Your task to perform on an android device: open app "Pinterest" Image 0: 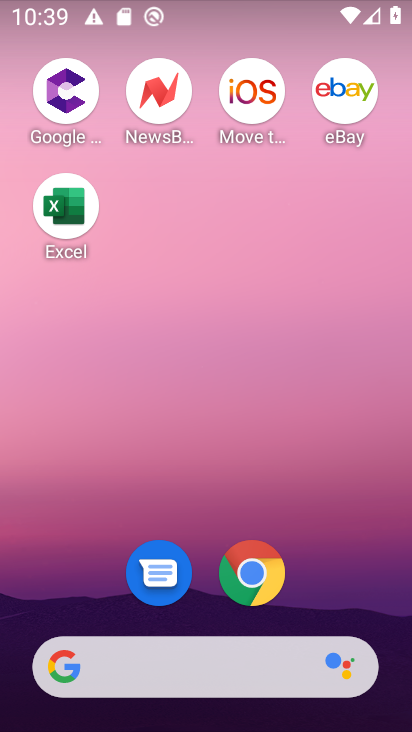
Step 0: press home button
Your task to perform on an android device: open app "Pinterest" Image 1: 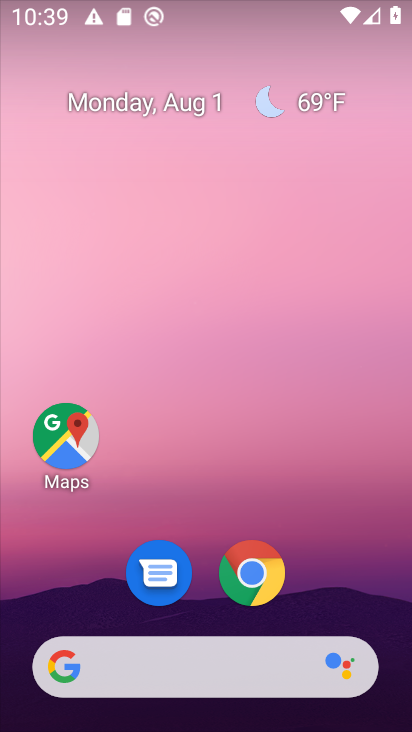
Step 1: drag from (332, 576) to (304, 68)
Your task to perform on an android device: open app "Pinterest" Image 2: 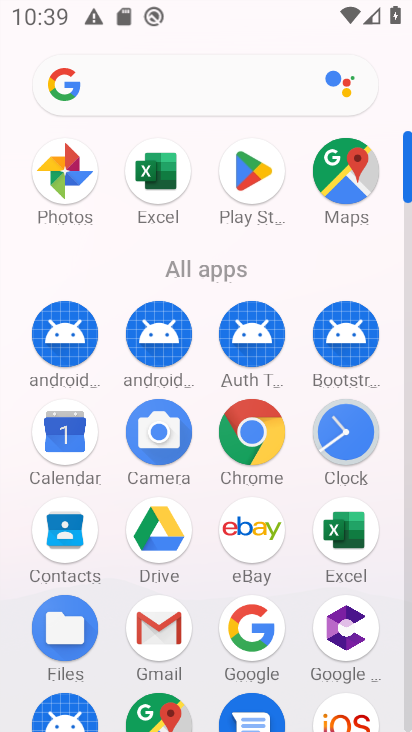
Step 2: click (265, 189)
Your task to perform on an android device: open app "Pinterest" Image 3: 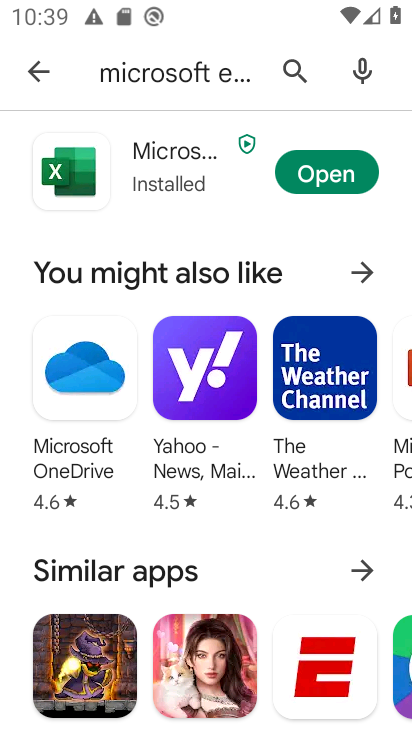
Step 3: click (292, 72)
Your task to perform on an android device: open app "Pinterest" Image 4: 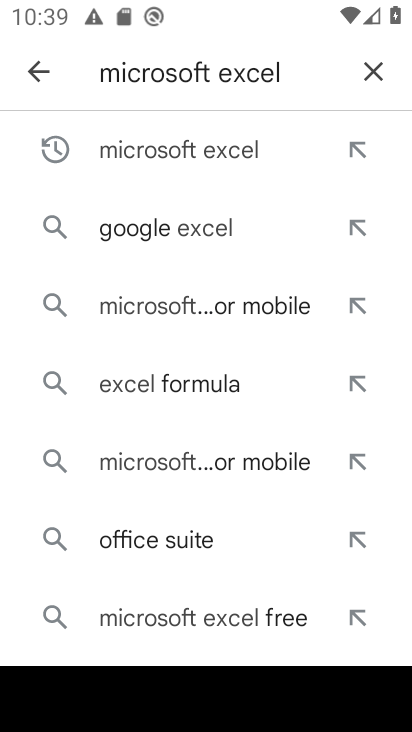
Step 4: click (371, 70)
Your task to perform on an android device: open app "Pinterest" Image 5: 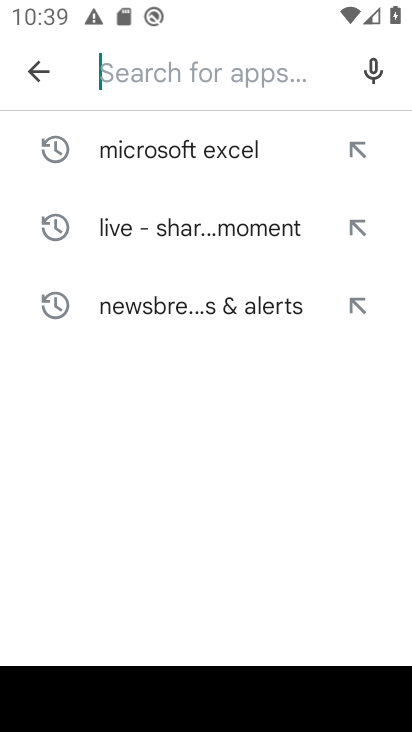
Step 5: click (257, 99)
Your task to perform on an android device: open app "Pinterest" Image 6: 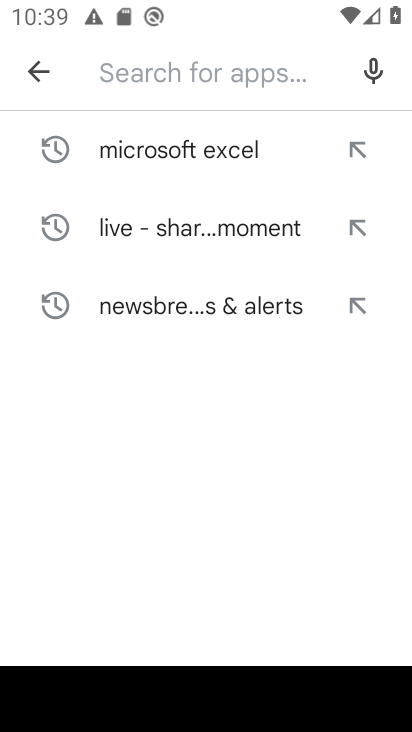
Step 6: type "pinterest"
Your task to perform on an android device: open app "Pinterest" Image 7: 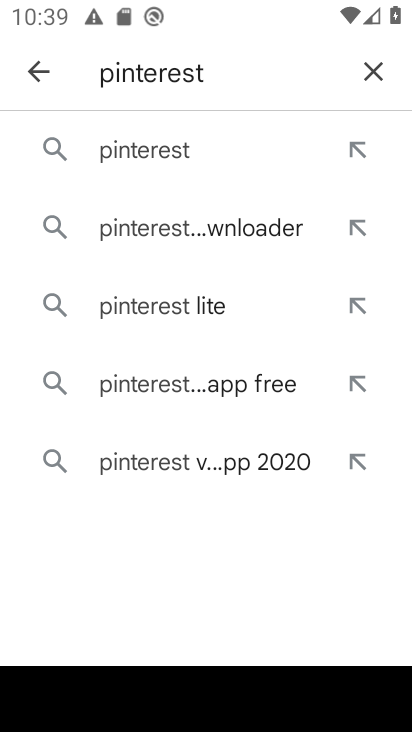
Step 7: click (207, 152)
Your task to perform on an android device: open app "Pinterest" Image 8: 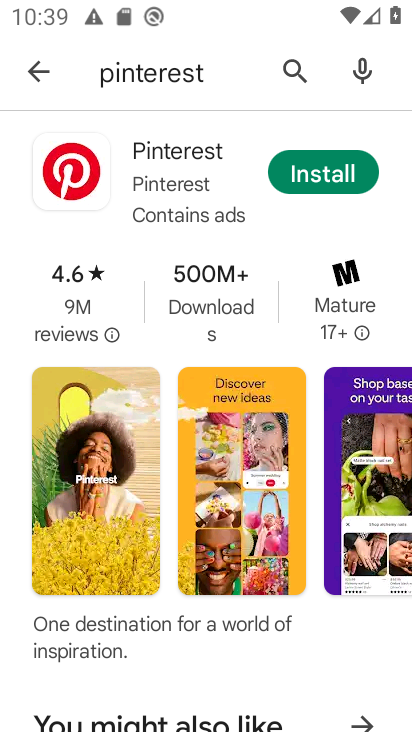
Step 8: task complete